Your task to perform on an android device: change the clock display to show seconds Image 0: 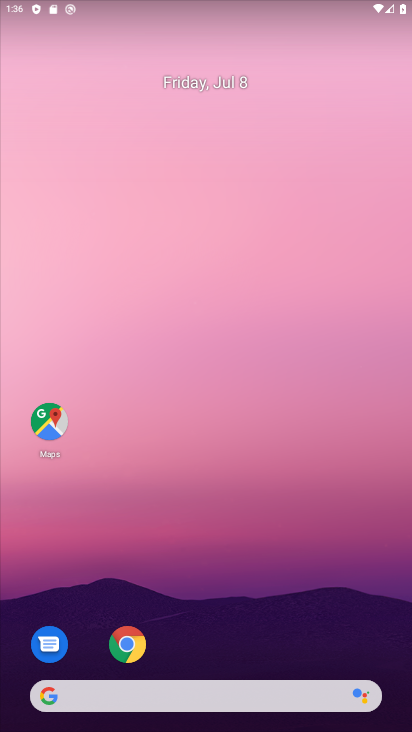
Step 0: drag from (207, 639) to (156, 156)
Your task to perform on an android device: change the clock display to show seconds Image 1: 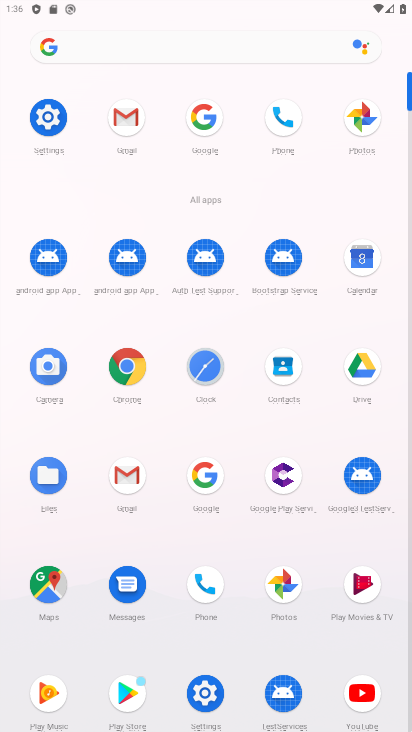
Step 1: click (211, 367)
Your task to perform on an android device: change the clock display to show seconds Image 2: 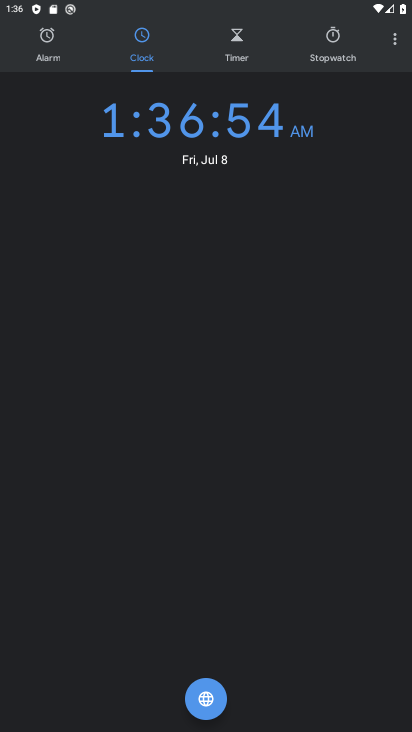
Step 2: click (398, 42)
Your task to perform on an android device: change the clock display to show seconds Image 3: 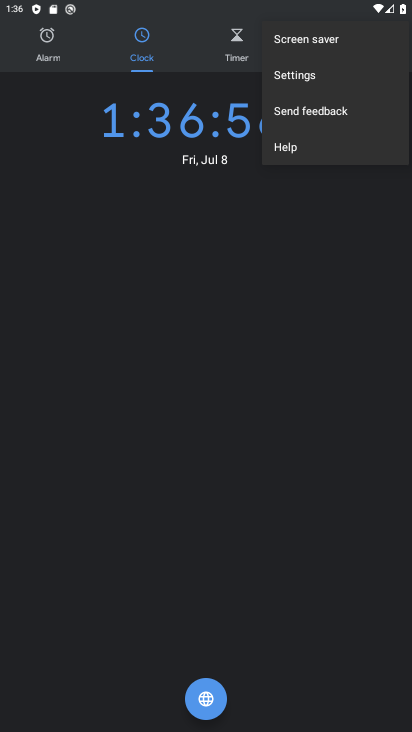
Step 3: click (300, 78)
Your task to perform on an android device: change the clock display to show seconds Image 4: 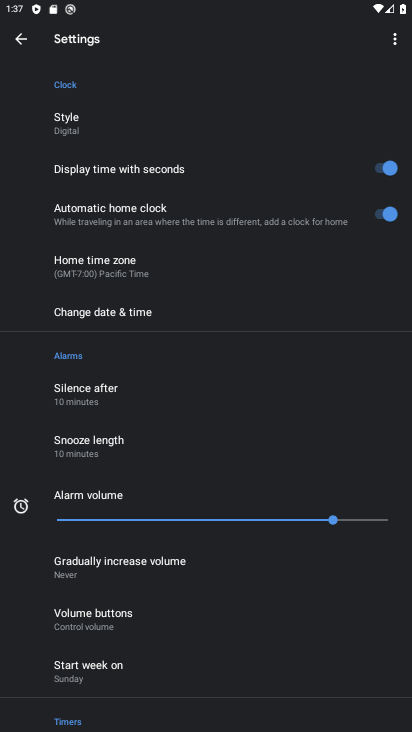
Step 4: click (393, 166)
Your task to perform on an android device: change the clock display to show seconds Image 5: 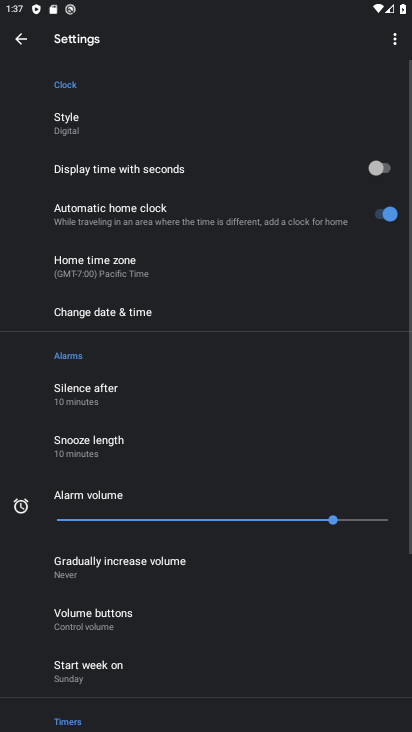
Step 5: task complete